Your task to perform on an android device: When is my next appointment? Image 0: 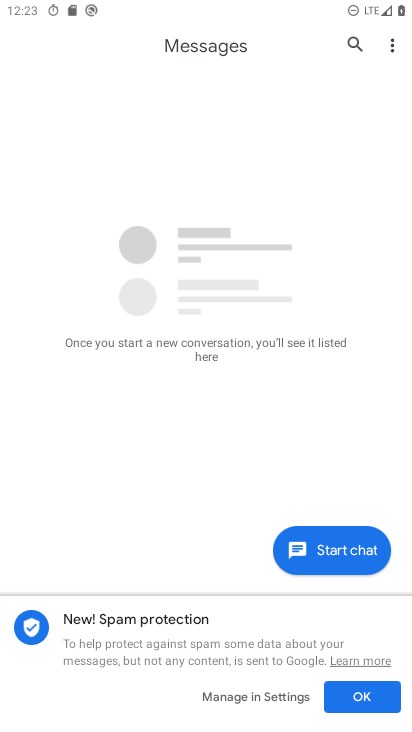
Step 0: press home button
Your task to perform on an android device: When is my next appointment? Image 1: 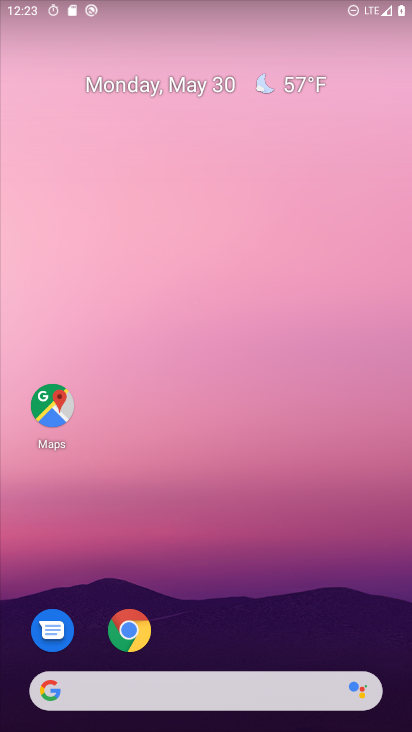
Step 1: drag from (249, 597) to (197, 156)
Your task to perform on an android device: When is my next appointment? Image 2: 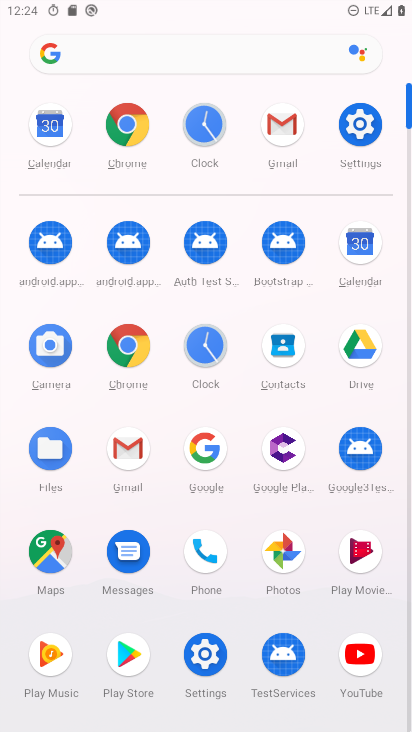
Step 2: click (60, 118)
Your task to perform on an android device: When is my next appointment? Image 3: 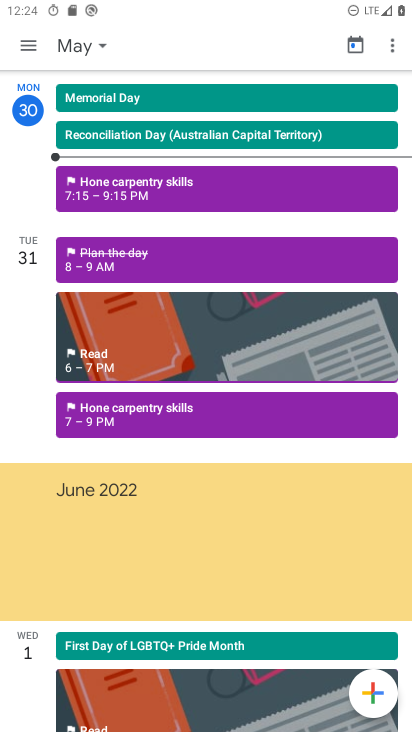
Step 3: click (34, 38)
Your task to perform on an android device: When is my next appointment? Image 4: 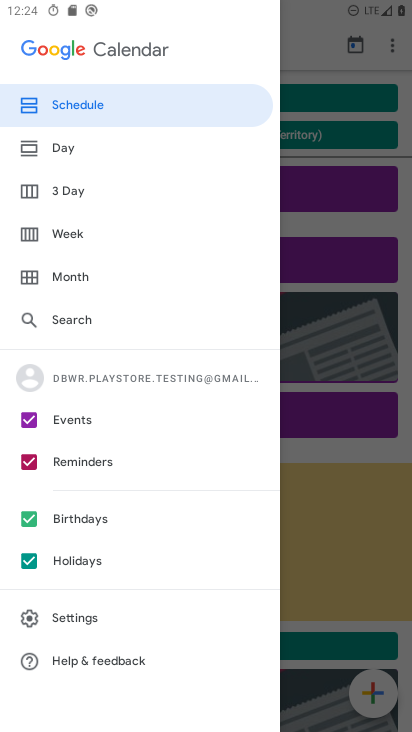
Step 4: click (73, 103)
Your task to perform on an android device: When is my next appointment? Image 5: 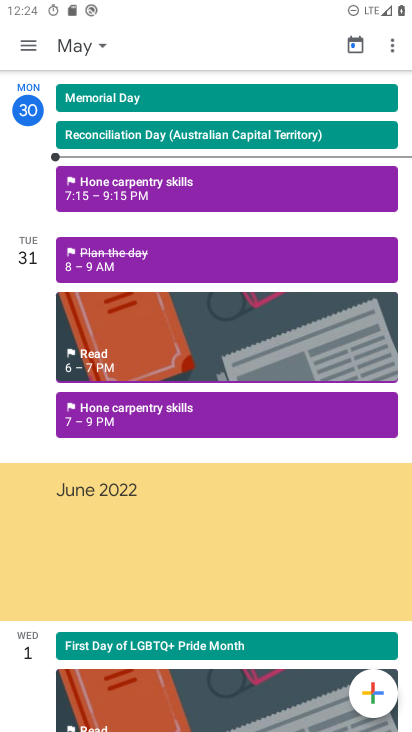
Step 5: task complete